Your task to perform on an android device: Open maps Image 0: 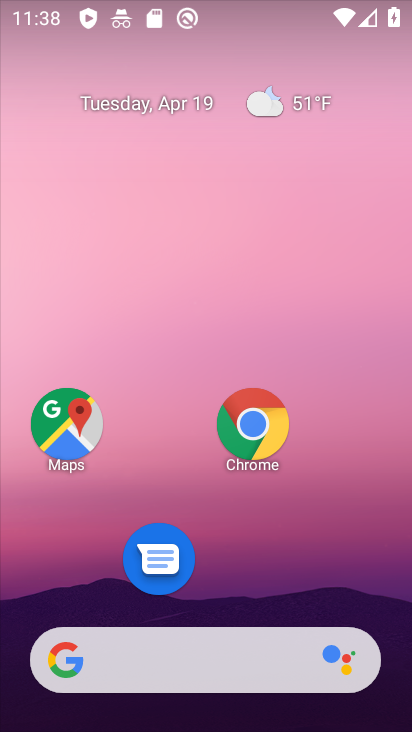
Step 0: drag from (201, 546) to (158, 78)
Your task to perform on an android device: Open maps Image 1: 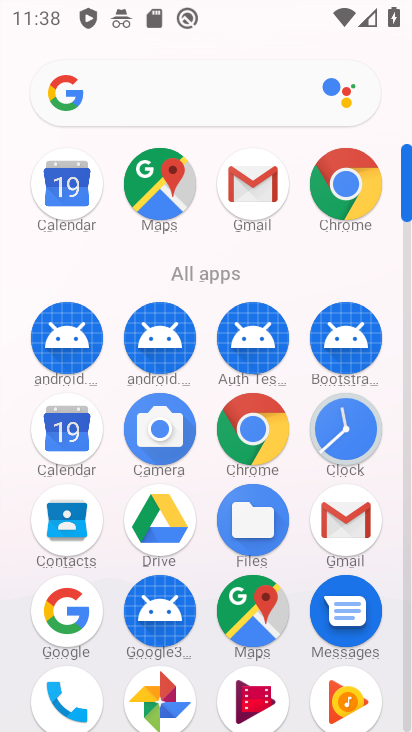
Step 1: click (172, 168)
Your task to perform on an android device: Open maps Image 2: 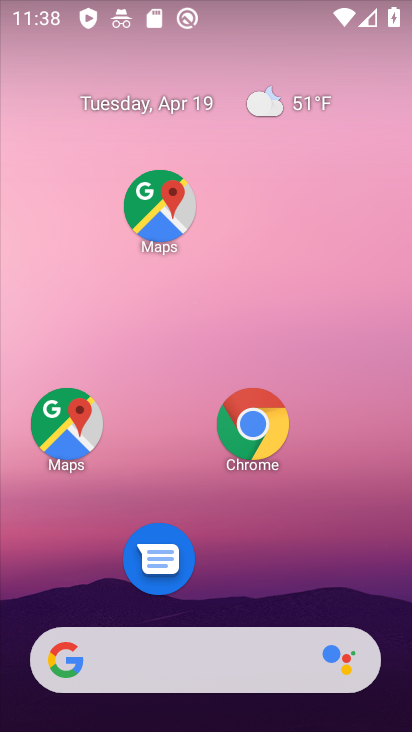
Step 2: click (163, 222)
Your task to perform on an android device: Open maps Image 3: 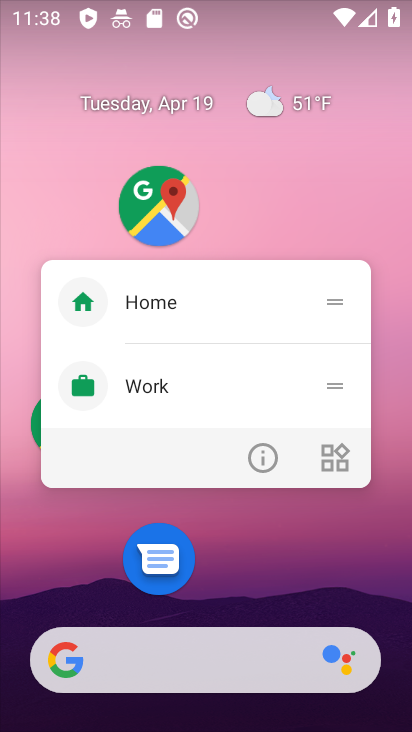
Step 3: click (165, 220)
Your task to perform on an android device: Open maps Image 4: 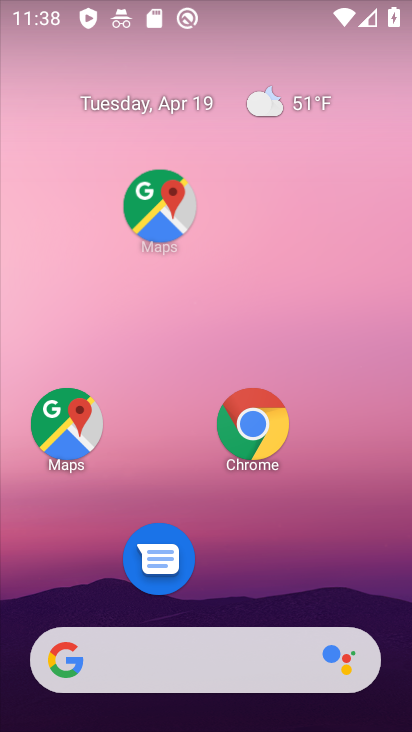
Step 4: click (166, 219)
Your task to perform on an android device: Open maps Image 5: 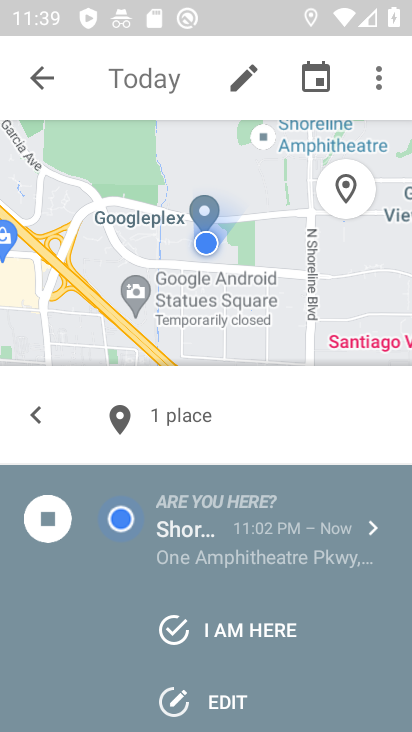
Step 5: task complete